Your task to perform on an android device: change the clock style Image 0: 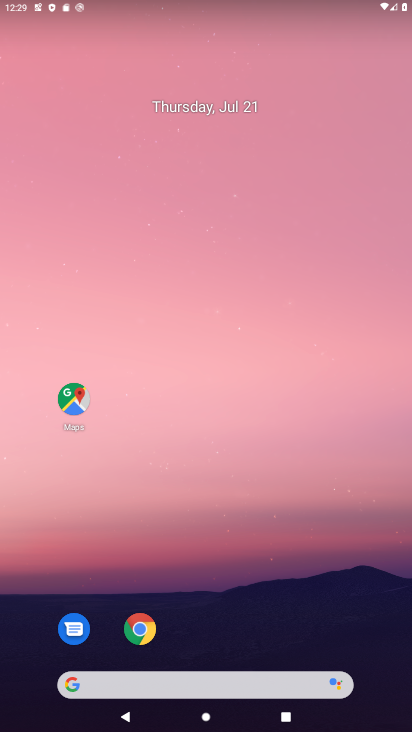
Step 0: drag from (302, 586) to (250, 113)
Your task to perform on an android device: change the clock style Image 1: 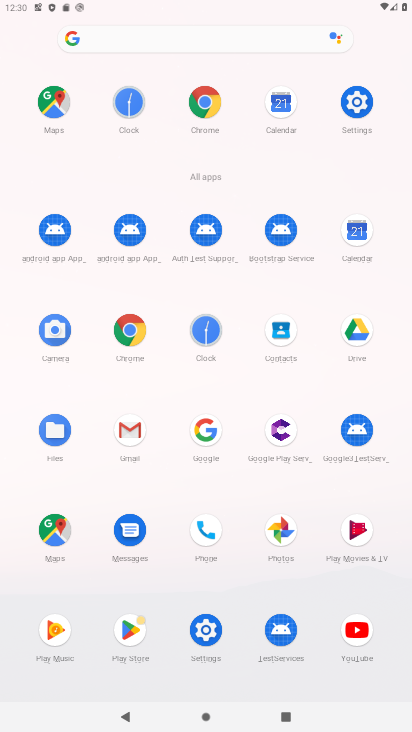
Step 1: click (211, 321)
Your task to perform on an android device: change the clock style Image 2: 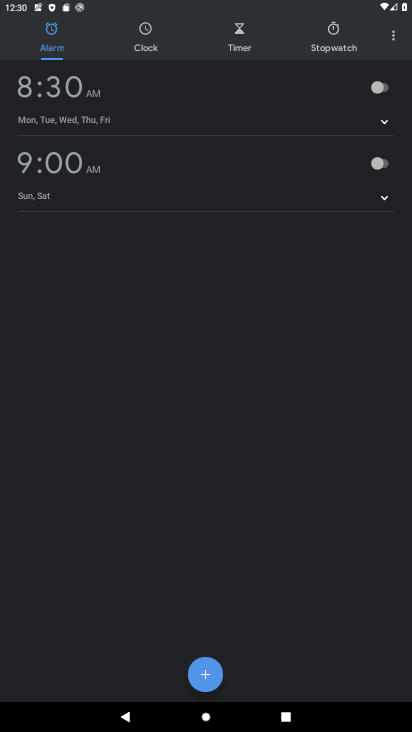
Step 2: click (392, 43)
Your task to perform on an android device: change the clock style Image 3: 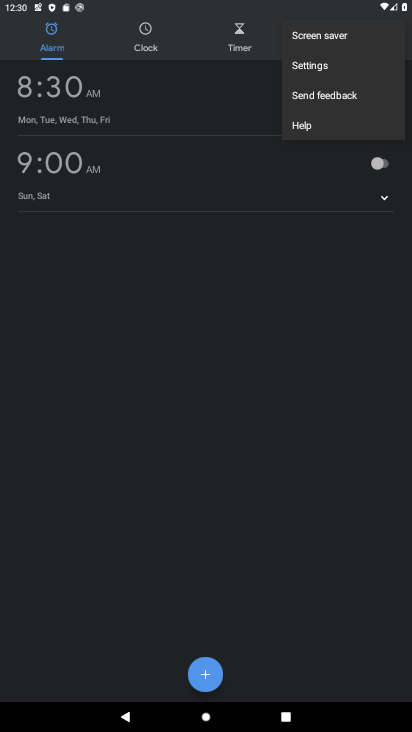
Step 3: click (321, 75)
Your task to perform on an android device: change the clock style Image 4: 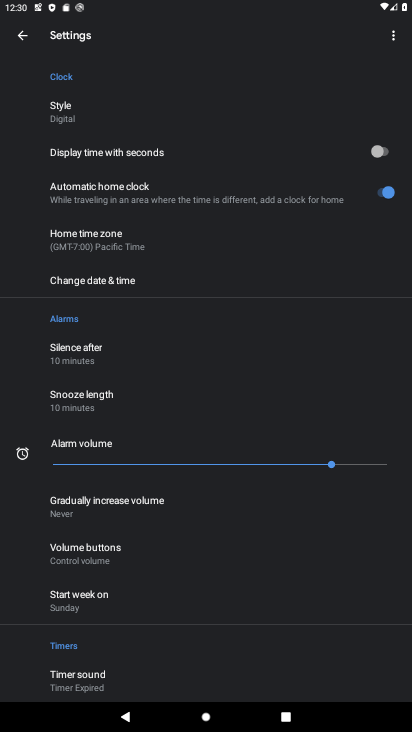
Step 4: click (75, 114)
Your task to perform on an android device: change the clock style Image 5: 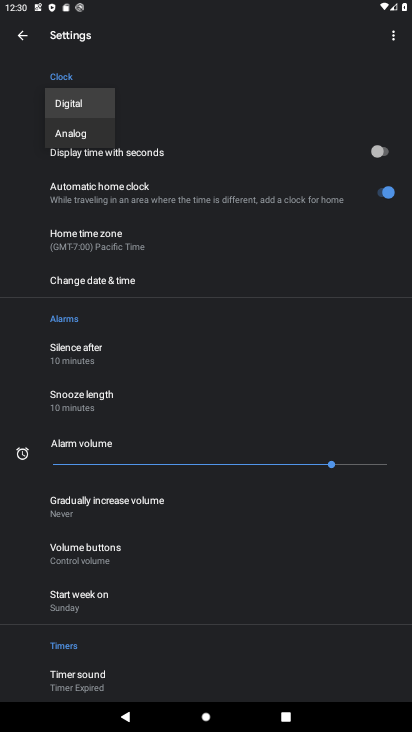
Step 5: click (90, 138)
Your task to perform on an android device: change the clock style Image 6: 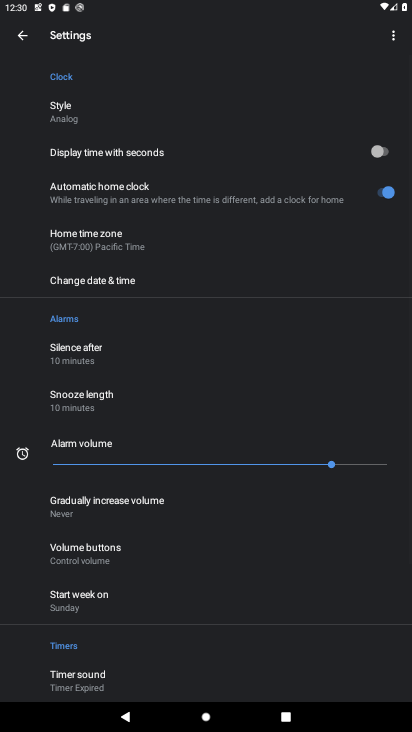
Step 6: task complete